Your task to perform on an android device: Search for Mexican restaurants on Maps Image 0: 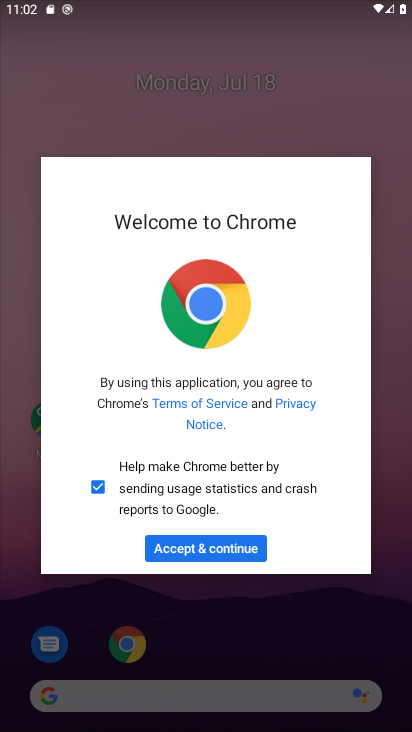
Step 0: click (176, 551)
Your task to perform on an android device: Search for Mexican restaurants on Maps Image 1: 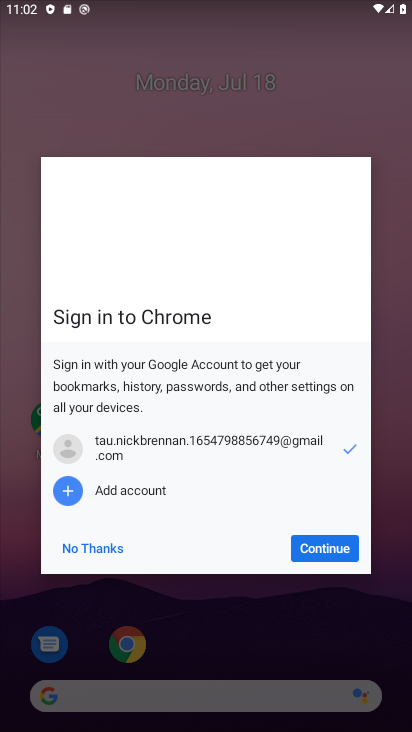
Step 1: click (316, 544)
Your task to perform on an android device: Search for Mexican restaurants on Maps Image 2: 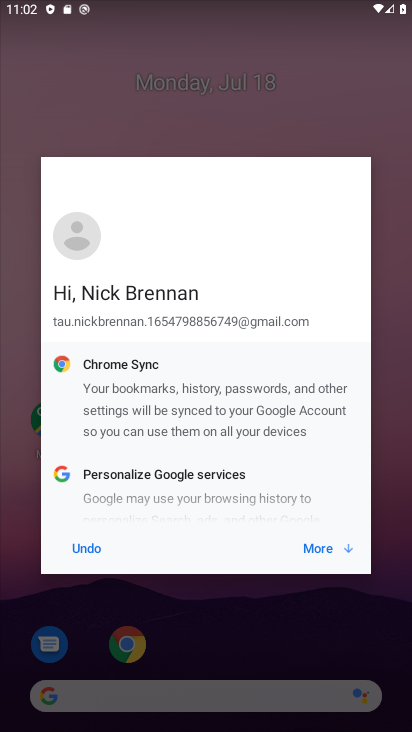
Step 2: click (315, 547)
Your task to perform on an android device: Search for Mexican restaurants on Maps Image 3: 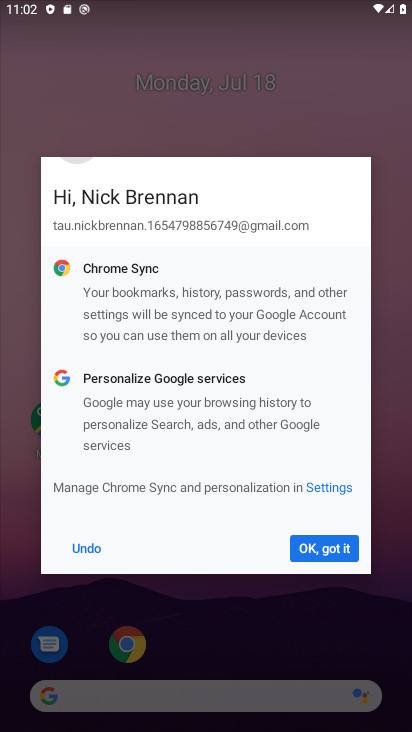
Step 3: click (325, 551)
Your task to perform on an android device: Search for Mexican restaurants on Maps Image 4: 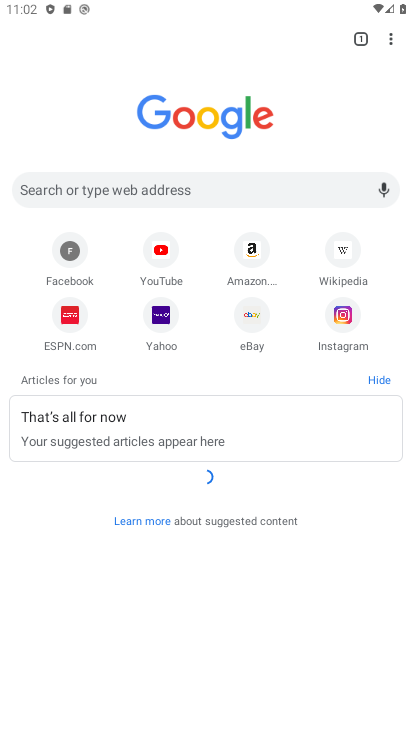
Step 4: press home button
Your task to perform on an android device: Search for Mexican restaurants on Maps Image 5: 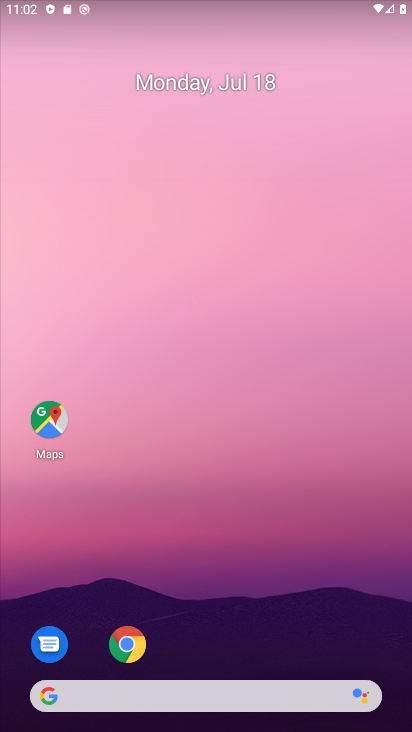
Step 5: drag from (236, 717) to (223, 99)
Your task to perform on an android device: Search for Mexican restaurants on Maps Image 6: 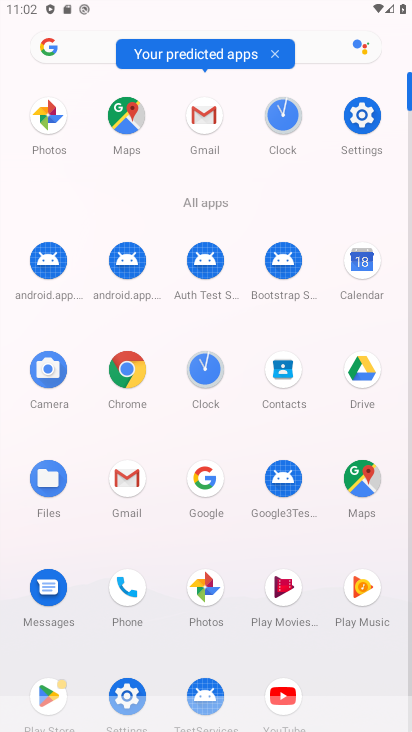
Step 6: click (364, 477)
Your task to perform on an android device: Search for Mexican restaurants on Maps Image 7: 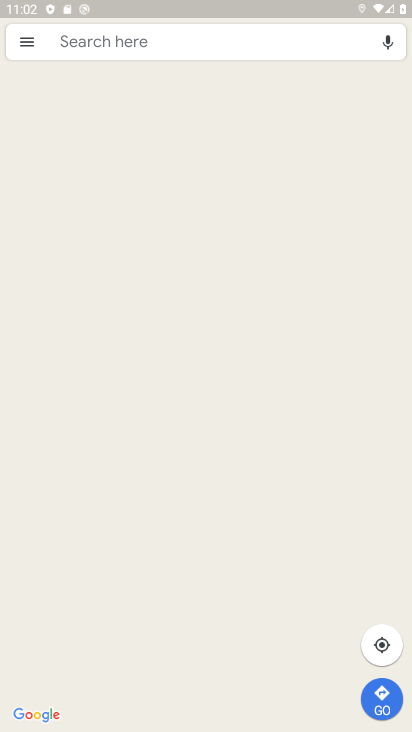
Step 7: click (284, 44)
Your task to perform on an android device: Search for Mexican restaurants on Maps Image 8: 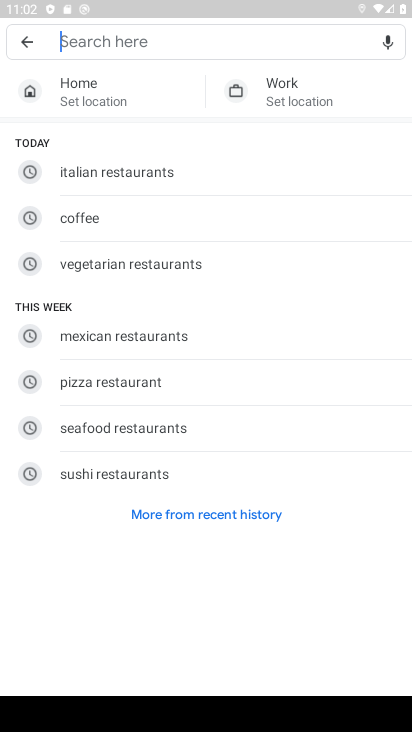
Step 8: type "Mexican restaurants"
Your task to perform on an android device: Search for Mexican restaurants on Maps Image 9: 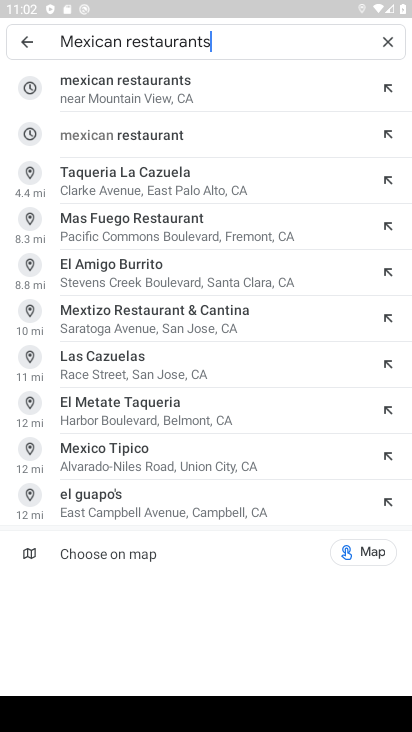
Step 9: click (114, 94)
Your task to perform on an android device: Search for Mexican restaurants on Maps Image 10: 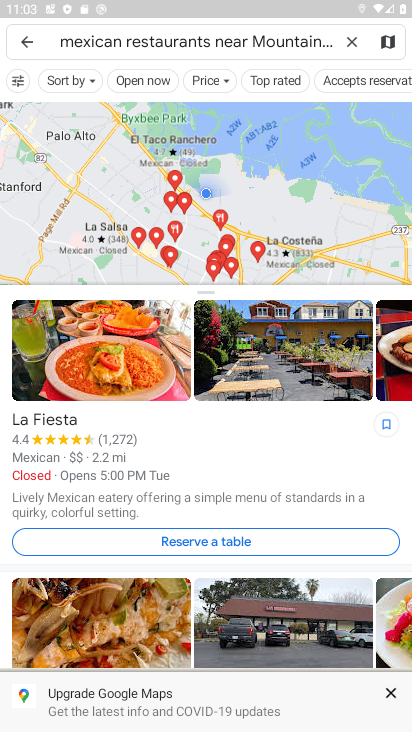
Step 10: task complete